Your task to perform on an android device: toggle wifi Image 0: 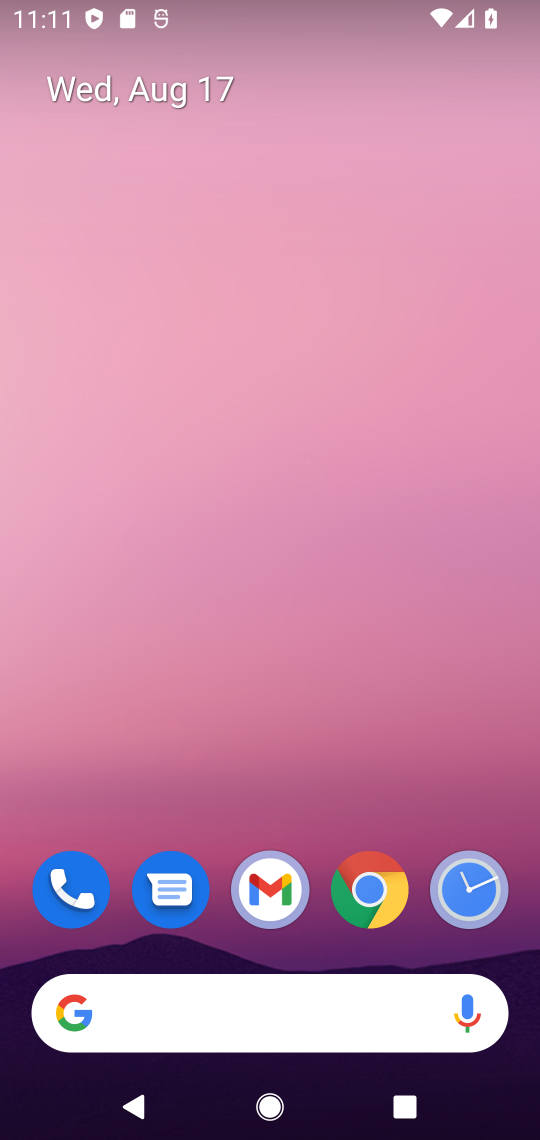
Step 0: drag from (323, 786) to (369, 0)
Your task to perform on an android device: toggle wifi Image 1: 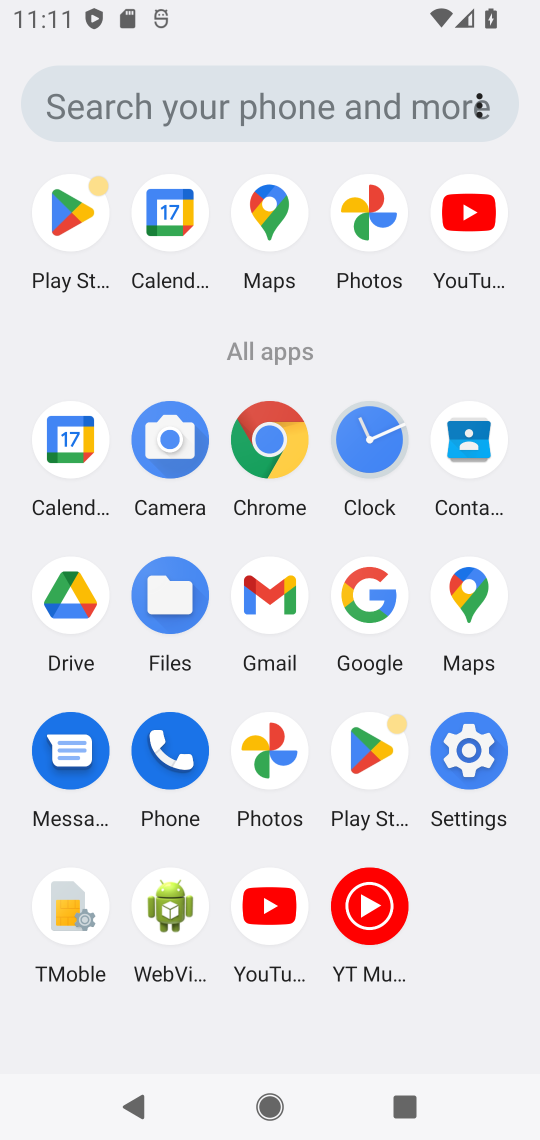
Step 1: click (462, 744)
Your task to perform on an android device: toggle wifi Image 2: 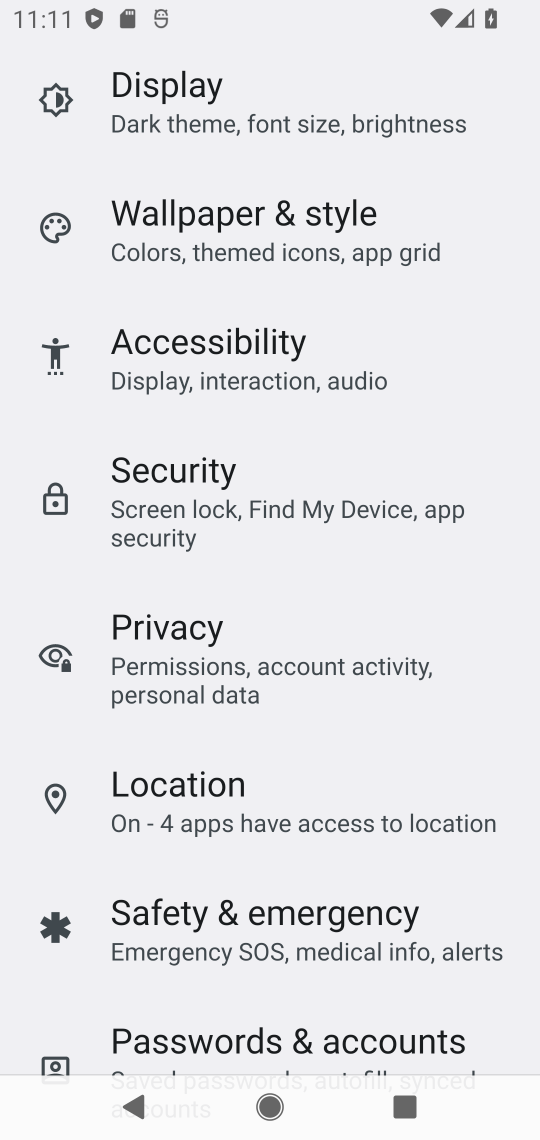
Step 2: drag from (260, 327) to (230, 1055)
Your task to perform on an android device: toggle wifi Image 3: 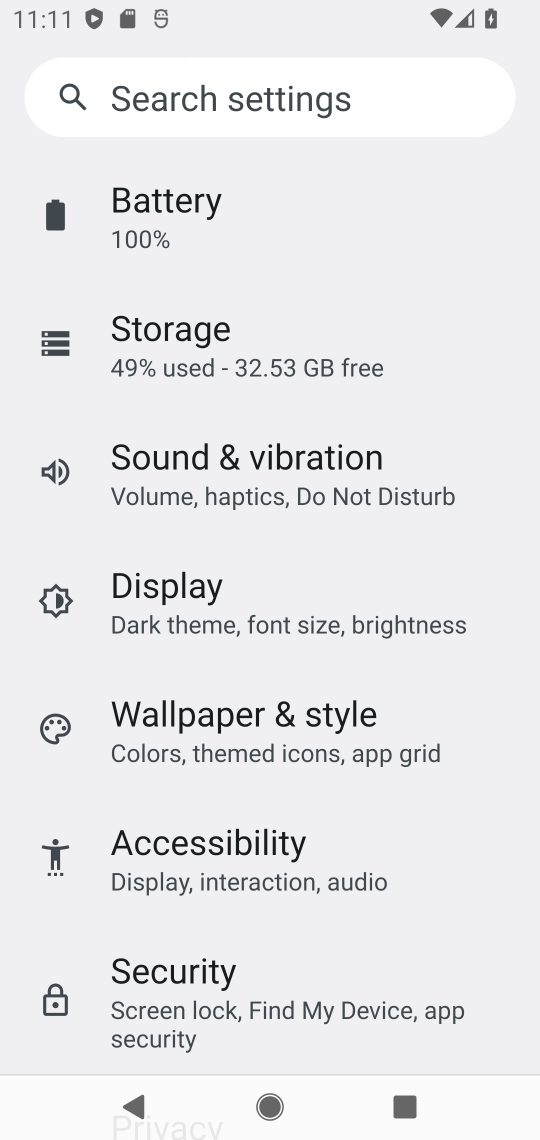
Step 3: drag from (289, 270) to (309, 967)
Your task to perform on an android device: toggle wifi Image 4: 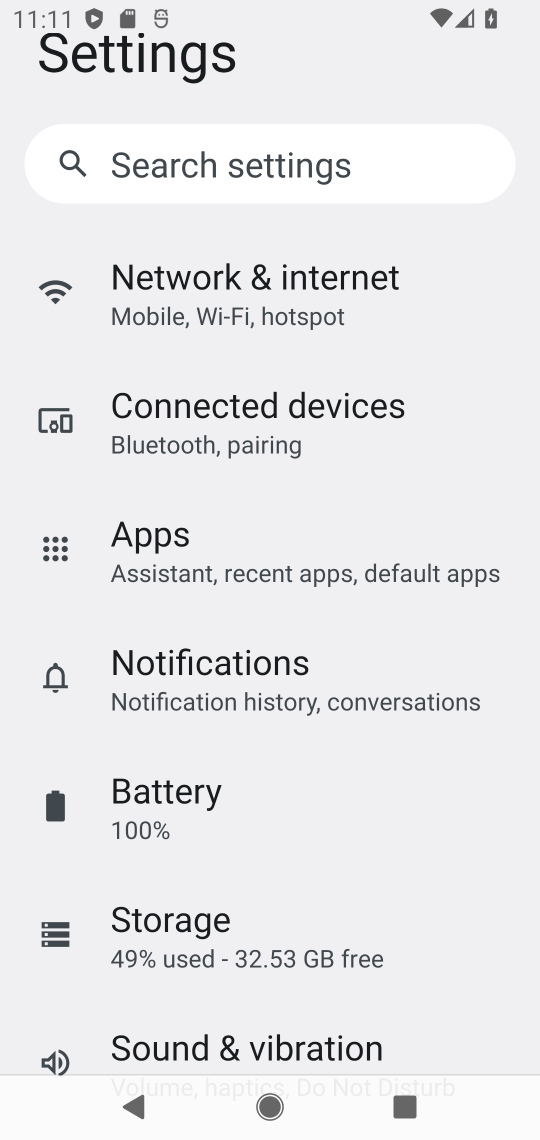
Step 4: click (322, 300)
Your task to perform on an android device: toggle wifi Image 5: 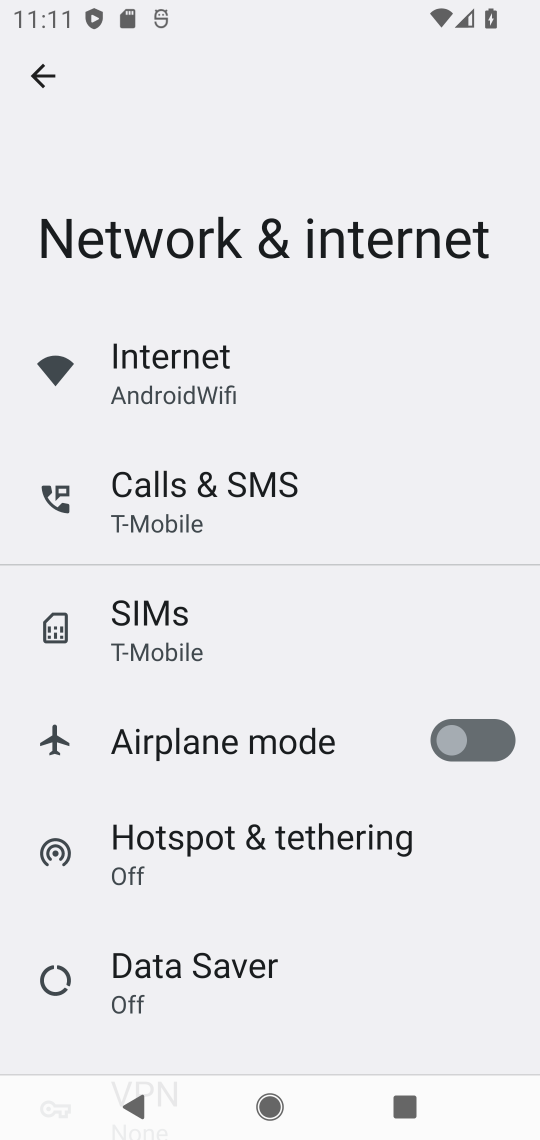
Step 5: click (206, 375)
Your task to perform on an android device: toggle wifi Image 6: 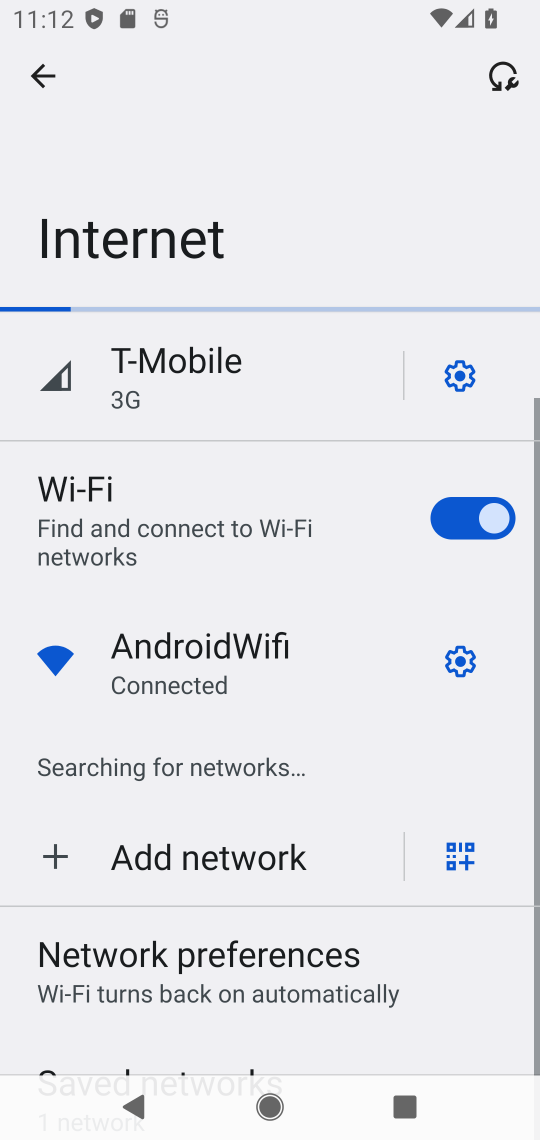
Step 6: click (459, 505)
Your task to perform on an android device: toggle wifi Image 7: 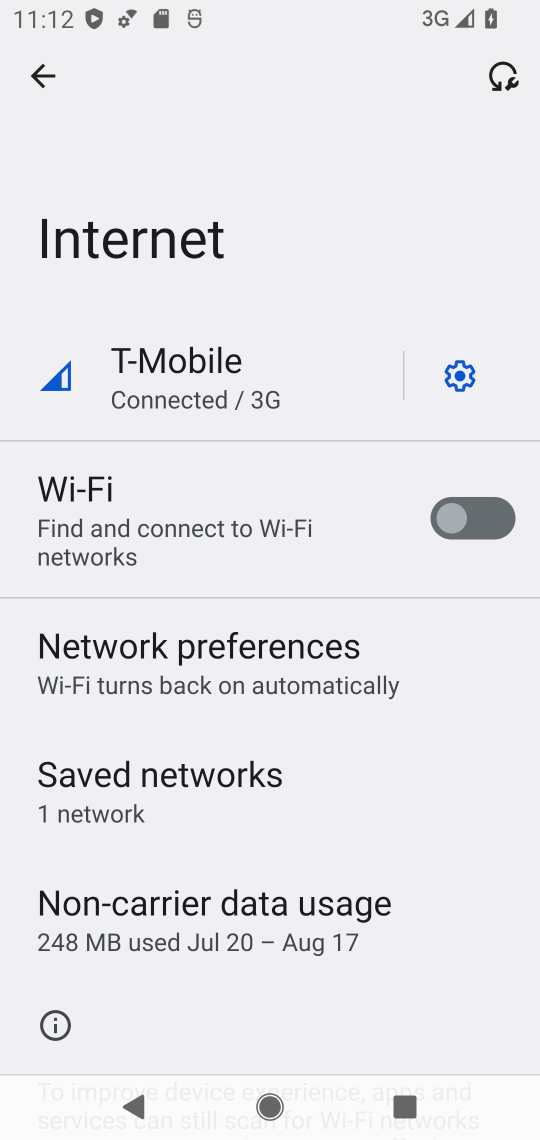
Step 7: task complete